Your task to perform on an android device: Open Chrome and go to settings Image 0: 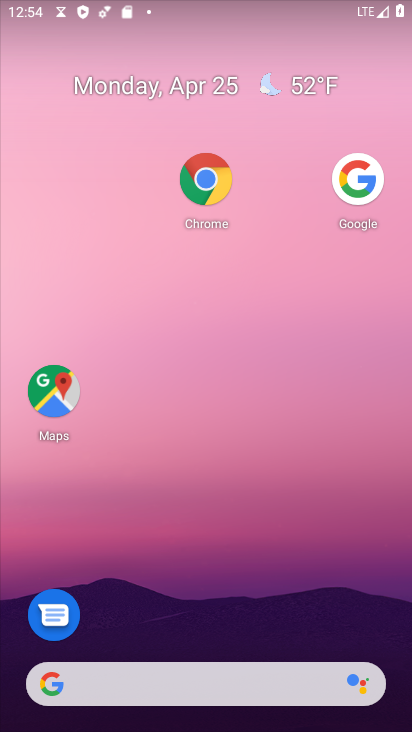
Step 0: drag from (184, 636) to (346, 104)
Your task to perform on an android device: Open Chrome and go to settings Image 1: 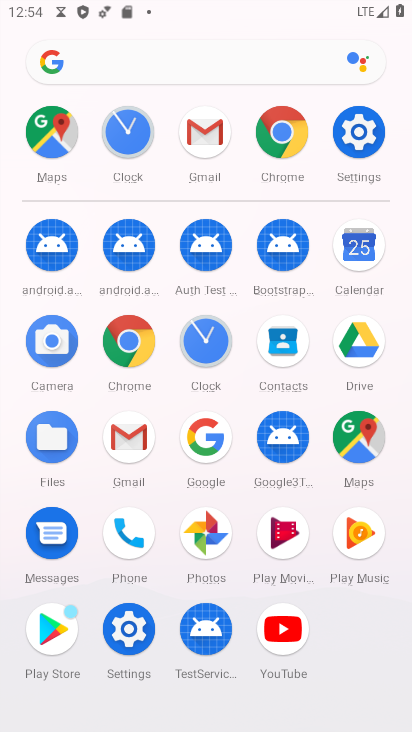
Step 1: click (131, 349)
Your task to perform on an android device: Open Chrome and go to settings Image 2: 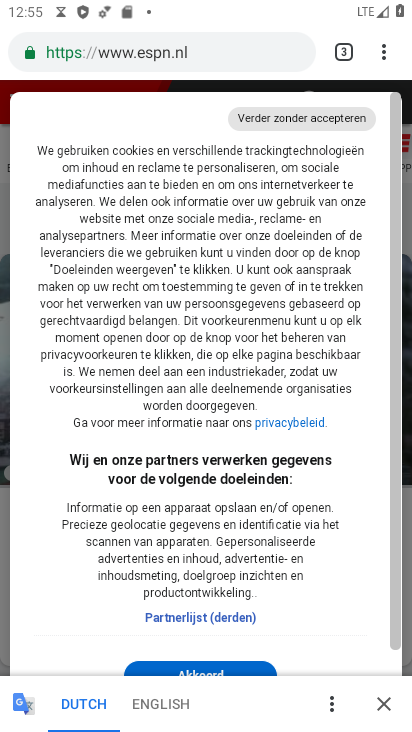
Step 2: drag from (381, 54) to (214, 656)
Your task to perform on an android device: Open Chrome and go to settings Image 3: 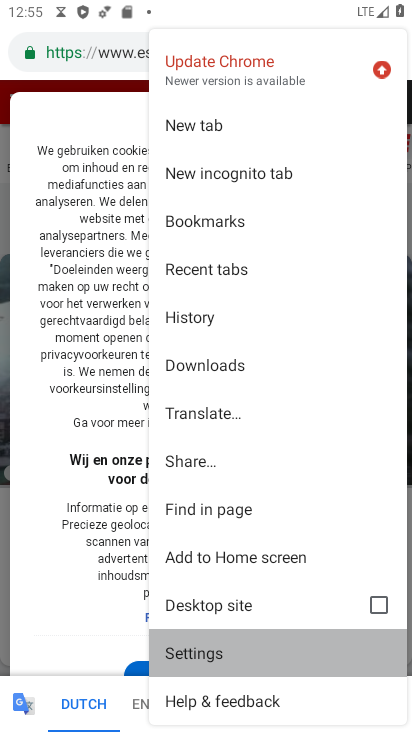
Step 3: click (213, 648)
Your task to perform on an android device: Open Chrome and go to settings Image 4: 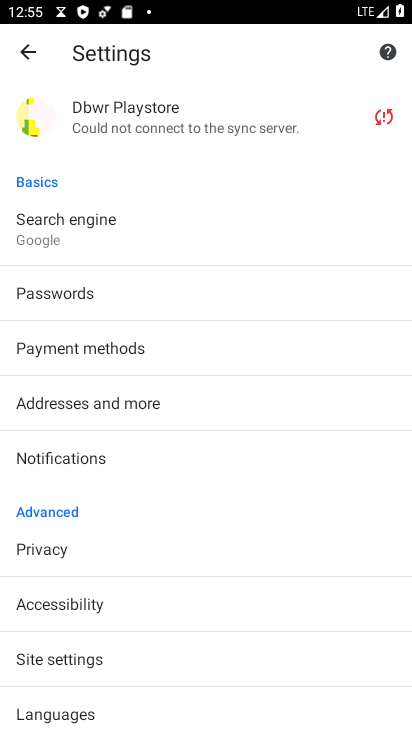
Step 4: task complete